Your task to perform on an android device: Open Chrome and go to settings Image 0: 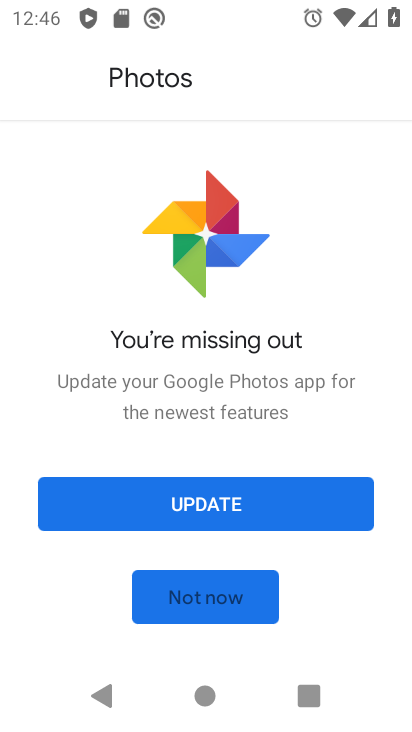
Step 0: press home button
Your task to perform on an android device: Open Chrome and go to settings Image 1: 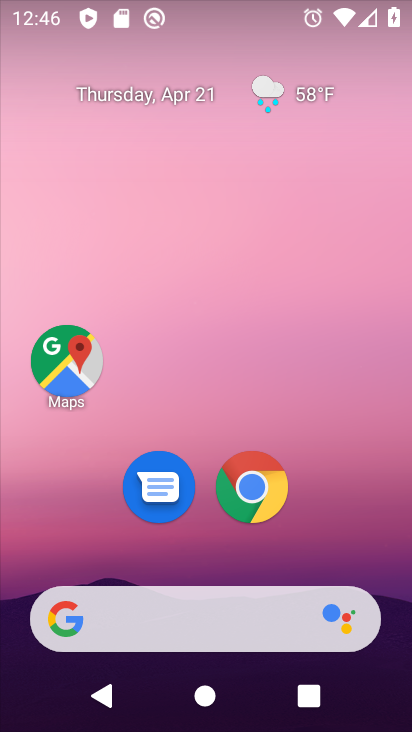
Step 1: click (245, 504)
Your task to perform on an android device: Open Chrome and go to settings Image 2: 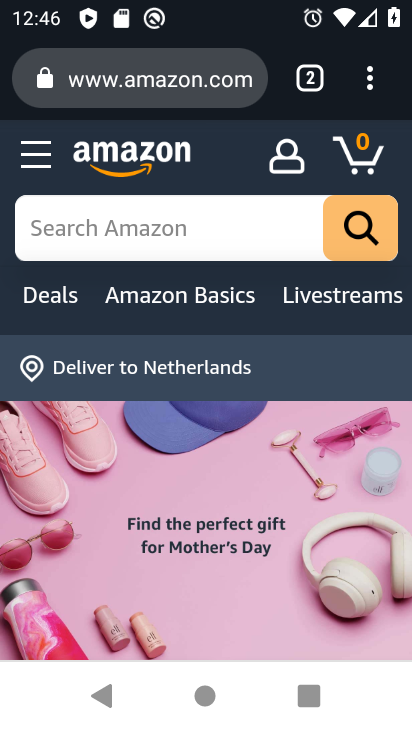
Step 2: task complete